Your task to perform on an android device: Search for pizza restaurants on Maps Image 0: 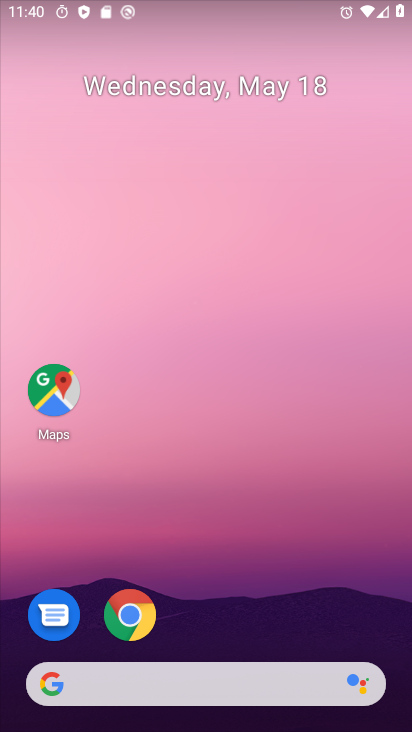
Step 0: click (59, 385)
Your task to perform on an android device: Search for pizza restaurants on Maps Image 1: 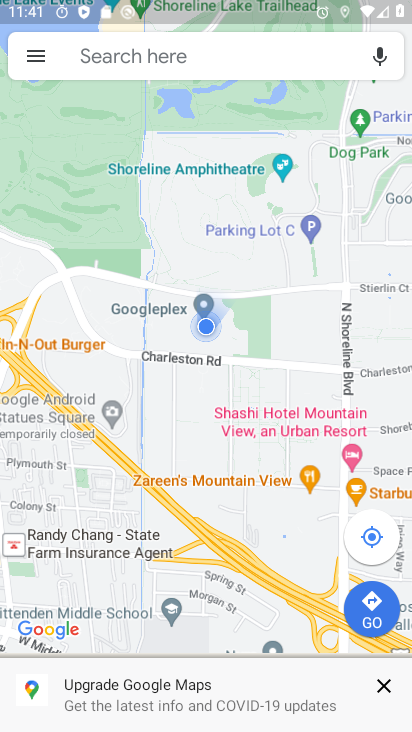
Step 1: click (152, 66)
Your task to perform on an android device: Search for pizza restaurants on Maps Image 2: 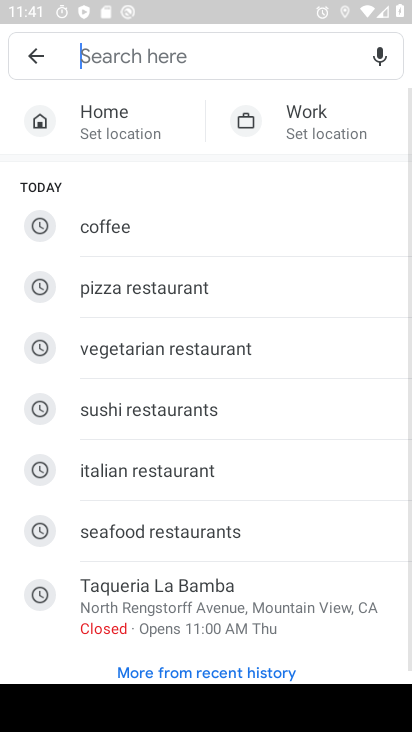
Step 2: click (154, 288)
Your task to perform on an android device: Search for pizza restaurants on Maps Image 3: 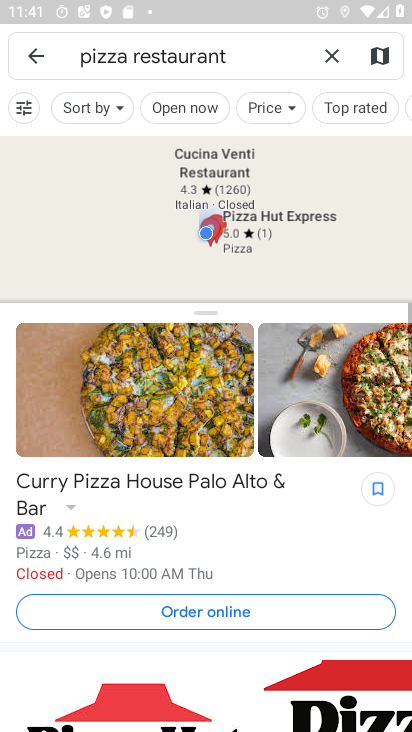
Step 3: task complete